Your task to perform on an android device: check the backup settings in the google photos Image 0: 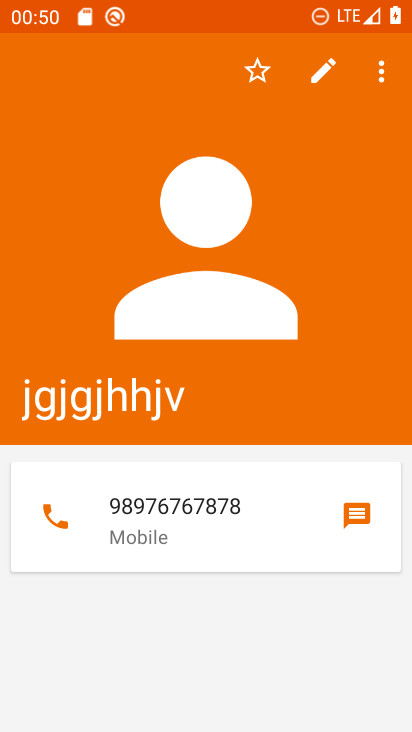
Step 0: press home button
Your task to perform on an android device: check the backup settings in the google photos Image 1: 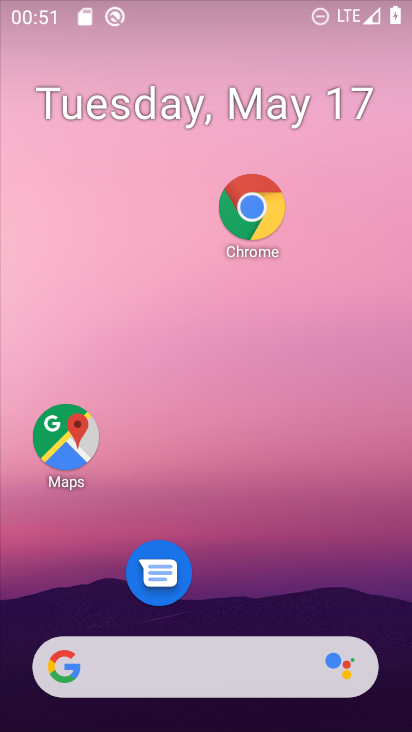
Step 1: drag from (258, 688) to (227, 63)
Your task to perform on an android device: check the backup settings in the google photos Image 2: 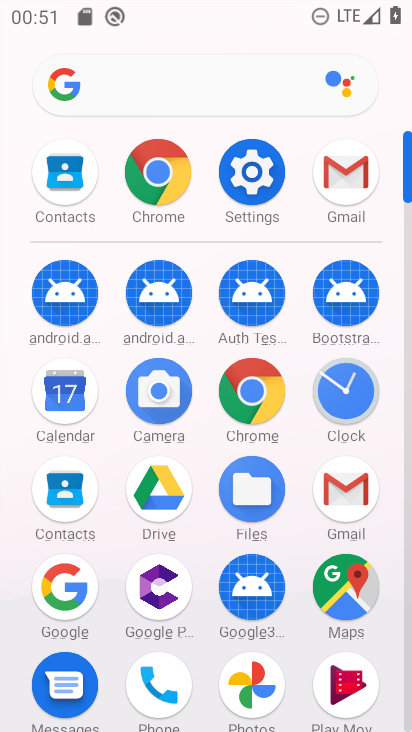
Step 2: click (249, 668)
Your task to perform on an android device: check the backup settings in the google photos Image 3: 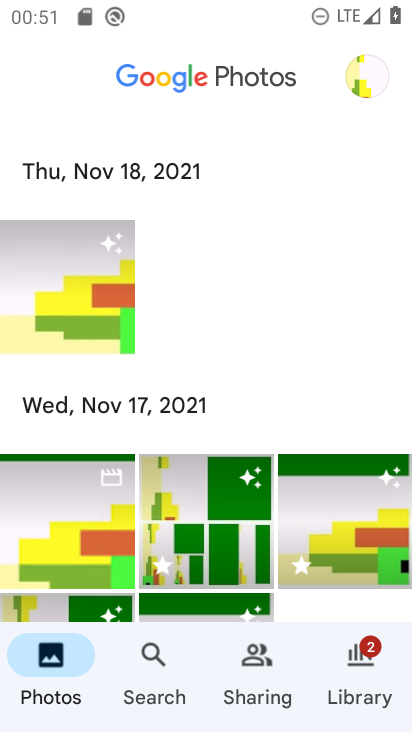
Step 3: click (345, 69)
Your task to perform on an android device: check the backup settings in the google photos Image 4: 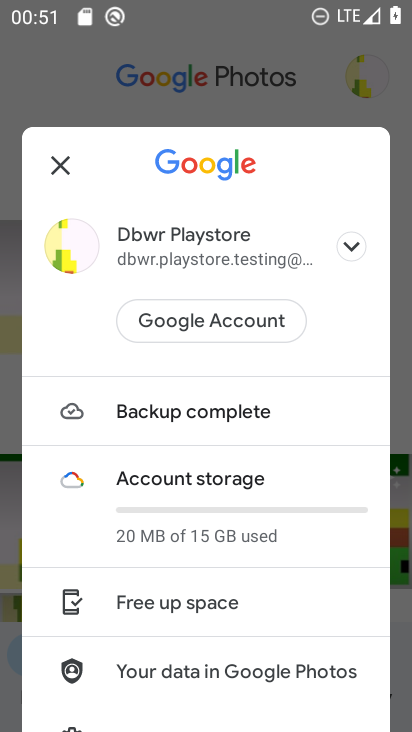
Step 4: drag from (241, 628) to (284, 87)
Your task to perform on an android device: check the backup settings in the google photos Image 5: 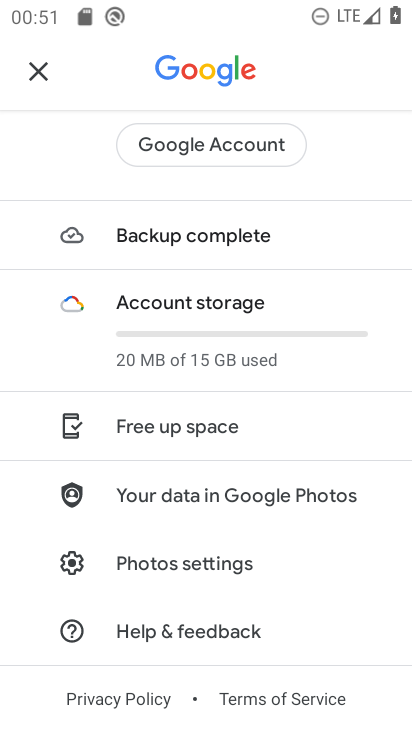
Step 5: click (215, 563)
Your task to perform on an android device: check the backup settings in the google photos Image 6: 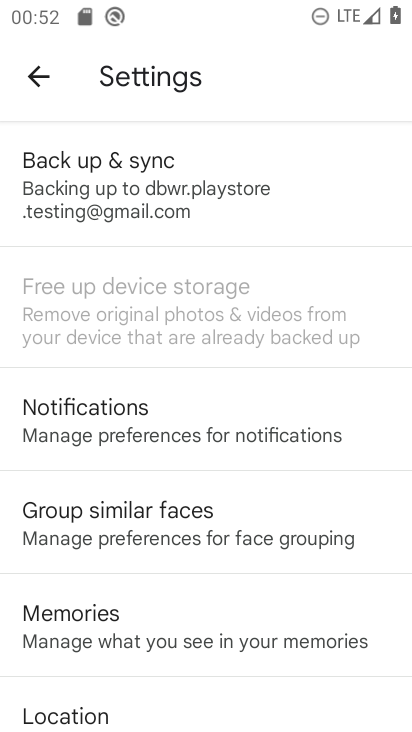
Step 6: click (197, 192)
Your task to perform on an android device: check the backup settings in the google photos Image 7: 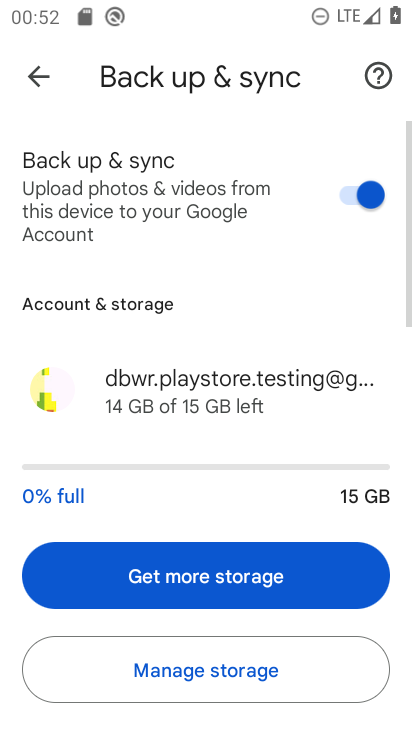
Step 7: task complete